Your task to perform on an android device: Open calendar and show me the second week of next month Image 0: 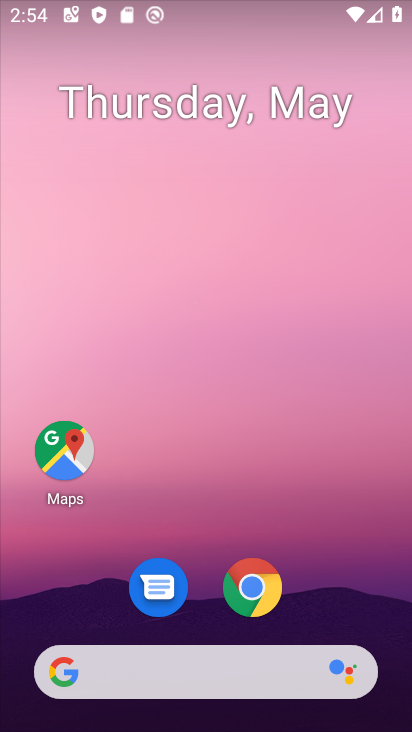
Step 0: drag from (320, 643) to (280, 13)
Your task to perform on an android device: Open calendar and show me the second week of next month Image 1: 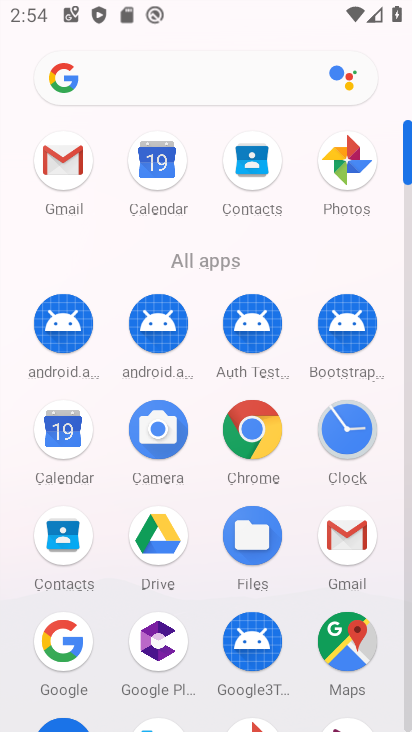
Step 1: click (79, 422)
Your task to perform on an android device: Open calendar and show me the second week of next month Image 2: 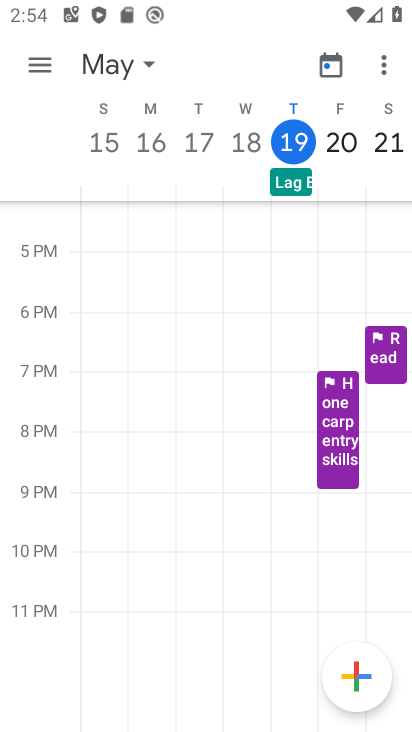
Step 2: click (132, 70)
Your task to perform on an android device: Open calendar and show me the second week of next month Image 3: 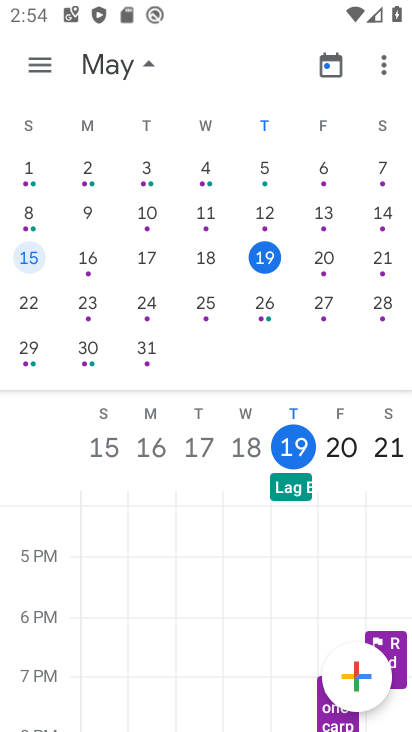
Step 3: drag from (303, 279) to (41, 284)
Your task to perform on an android device: Open calendar and show me the second week of next month Image 4: 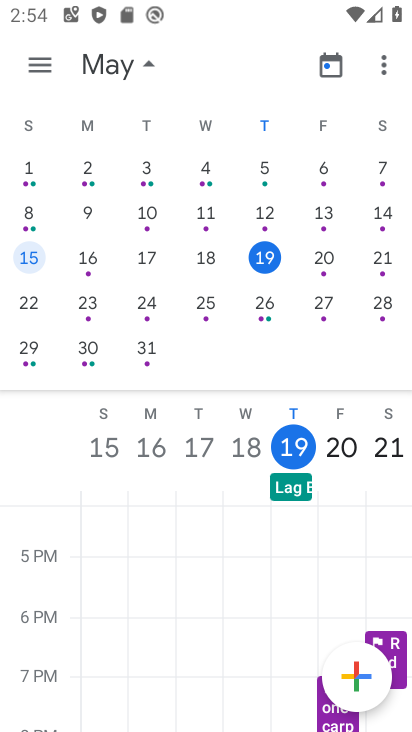
Step 4: drag from (364, 251) to (71, 277)
Your task to perform on an android device: Open calendar and show me the second week of next month Image 5: 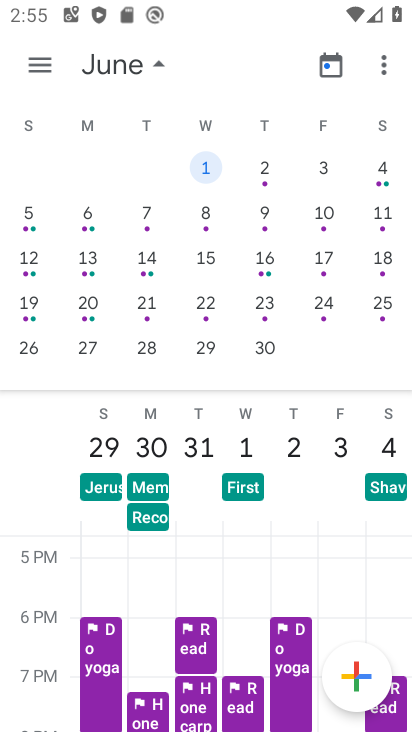
Step 5: click (103, 270)
Your task to perform on an android device: Open calendar and show me the second week of next month Image 6: 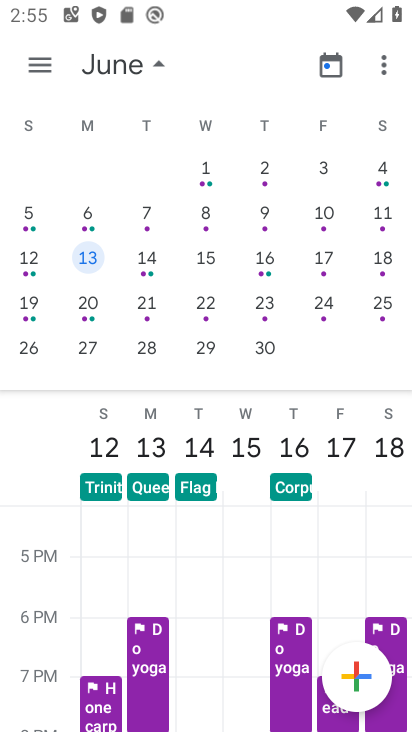
Step 6: task complete